Your task to perform on an android device: turn notification dots off Image 0: 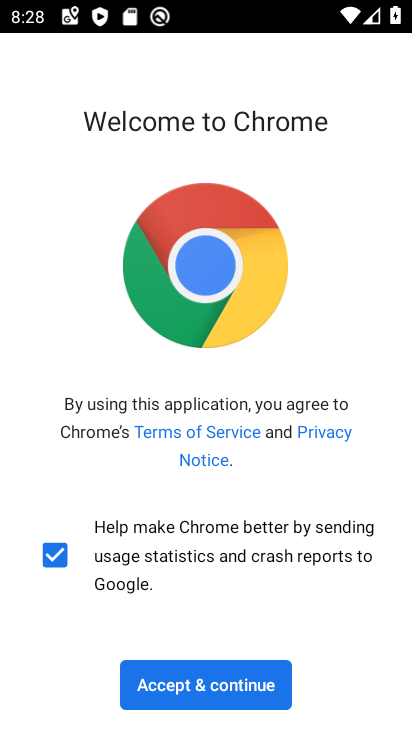
Step 0: press back button
Your task to perform on an android device: turn notification dots off Image 1: 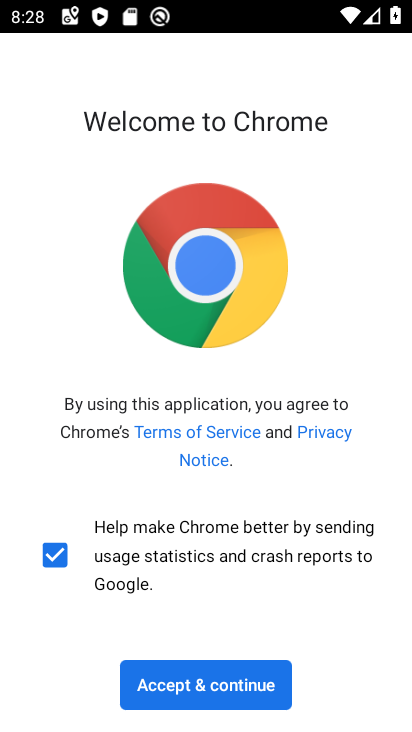
Step 1: press back button
Your task to perform on an android device: turn notification dots off Image 2: 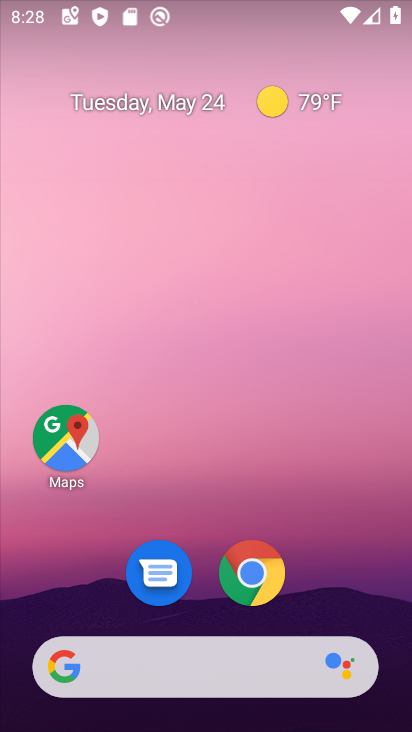
Step 2: drag from (355, 569) to (202, 24)
Your task to perform on an android device: turn notification dots off Image 3: 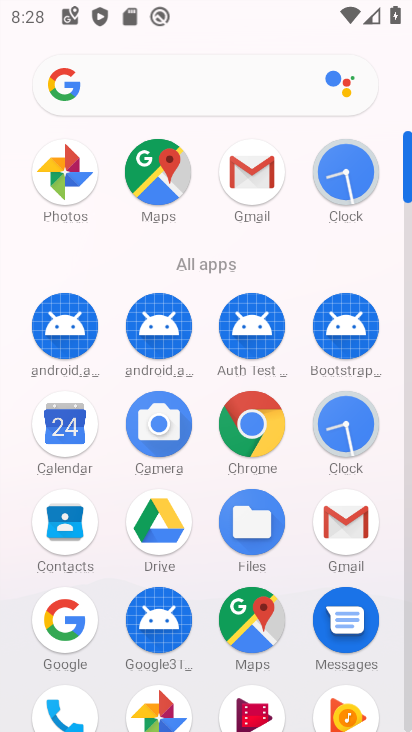
Step 3: click (251, 71)
Your task to perform on an android device: turn notification dots off Image 4: 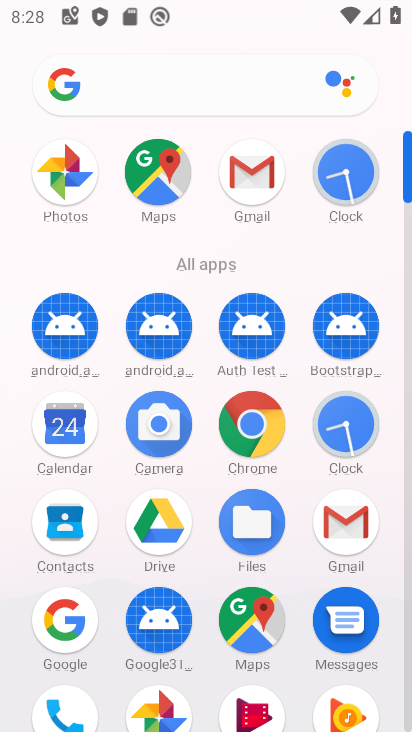
Step 4: drag from (325, 413) to (311, 202)
Your task to perform on an android device: turn notification dots off Image 5: 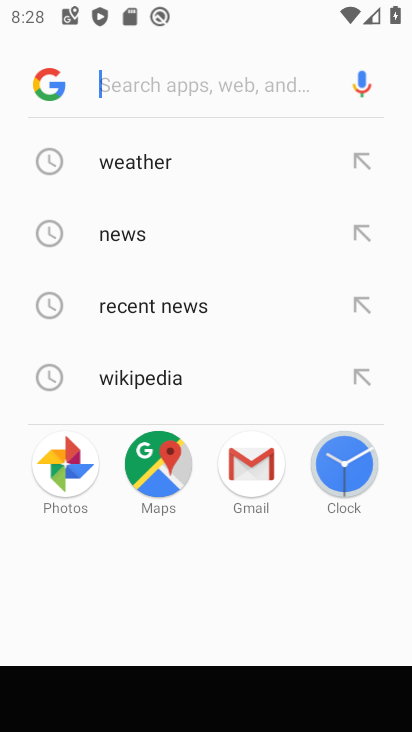
Step 5: click (317, 536)
Your task to perform on an android device: turn notification dots off Image 6: 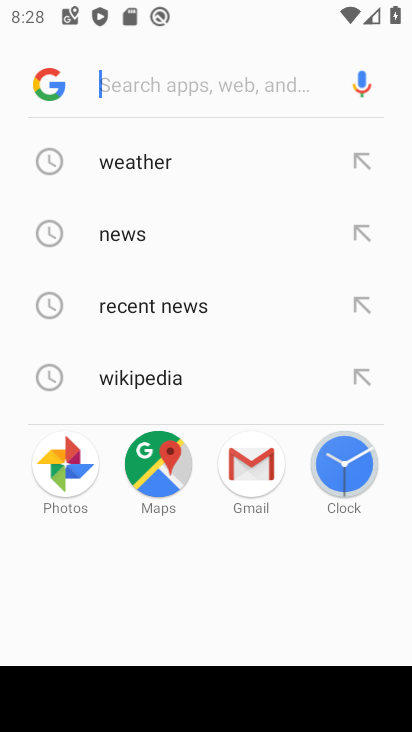
Step 6: press back button
Your task to perform on an android device: turn notification dots off Image 7: 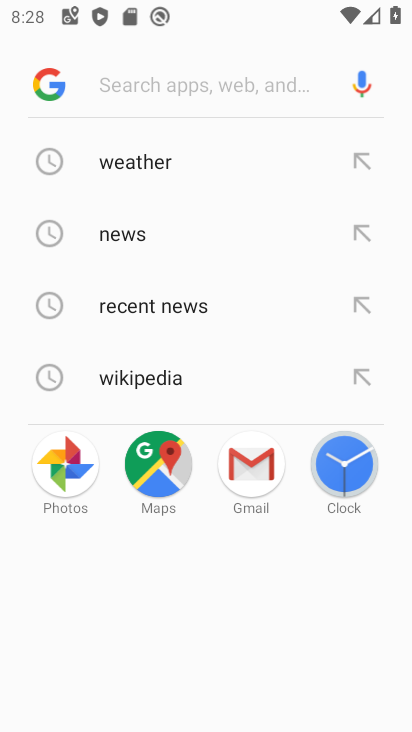
Step 7: press back button
Your task to perform on an android device: turn notification dots off Image 8: 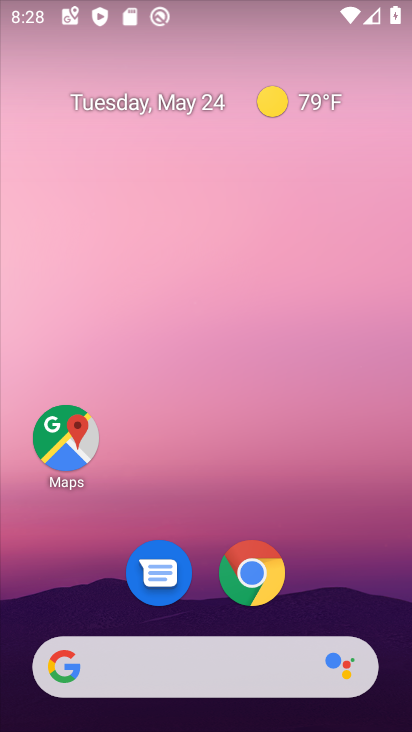
Step 8: drag from (331, 651) to (180, 91)
Your task to perform on an android device: turn notification dots off Image 9: 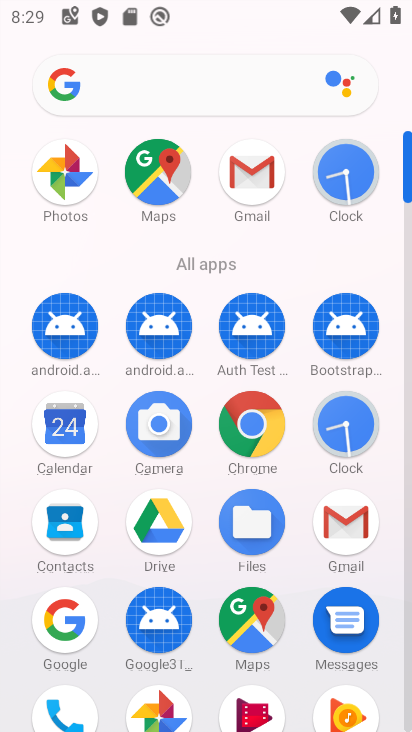
Step 9: drag from (233, 524) to (196, 172)
Your task to perform on an android device: turn notification dots off Image 10: 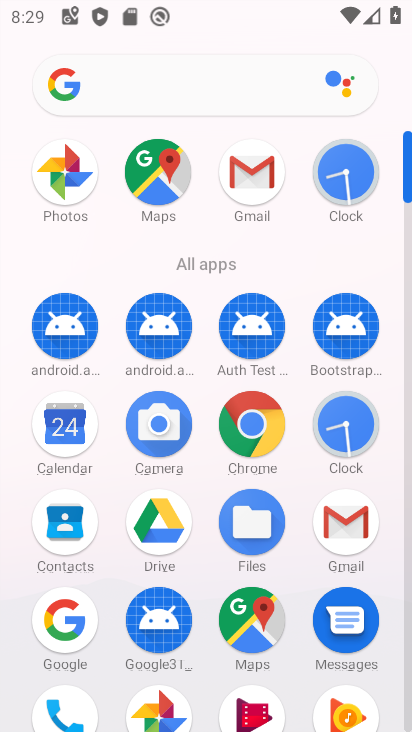
Step 10: drag from (217, 374) to (216, 130)
Your task to perform on an android device: turn notification dots off Image 11: 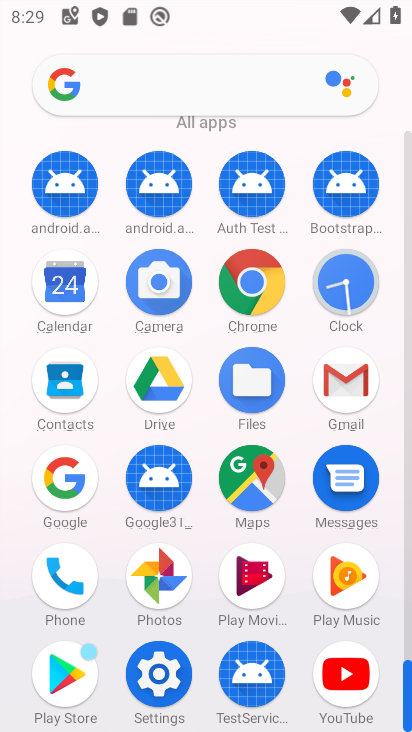
Step 11: click (134, 674)
Your task to perform on an android device: turn notification dots off Image 12: 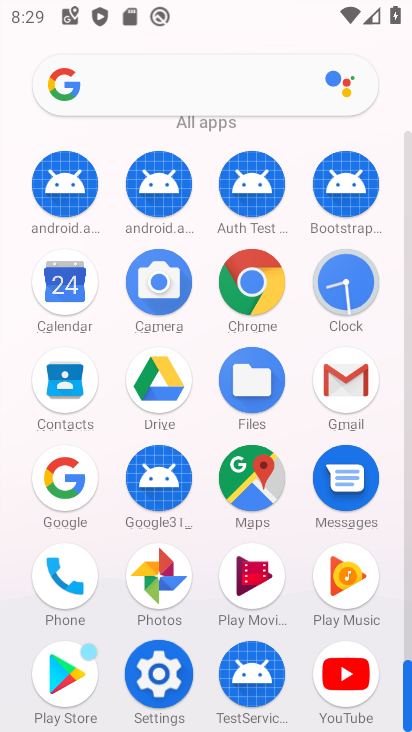
Step 12: click (140, 674)
Your task to perform on an android device: turn notification dots off Image 13: 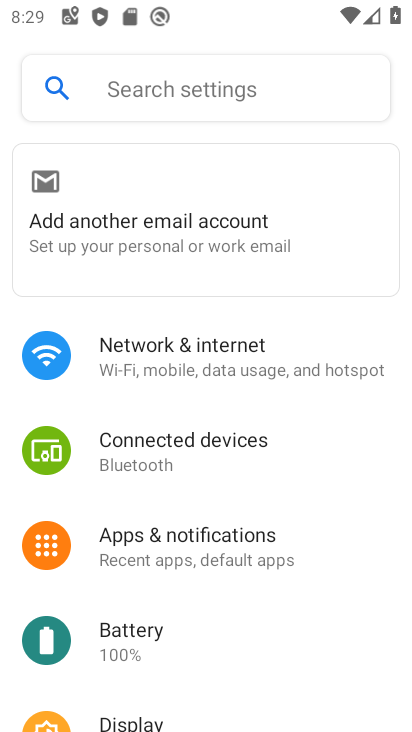
Step 13: click (147, 541)
Your task to perform on an android device: turn notification dots off Image 14: 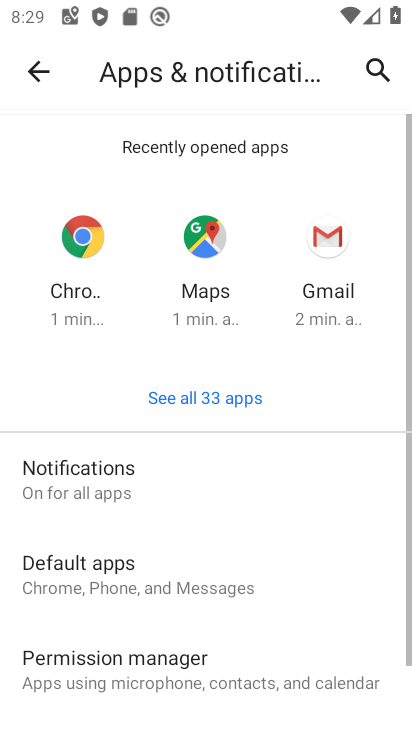
Step 14: click (70, 483)
Your task to perform on an android device: turn notification dots off Image 15: 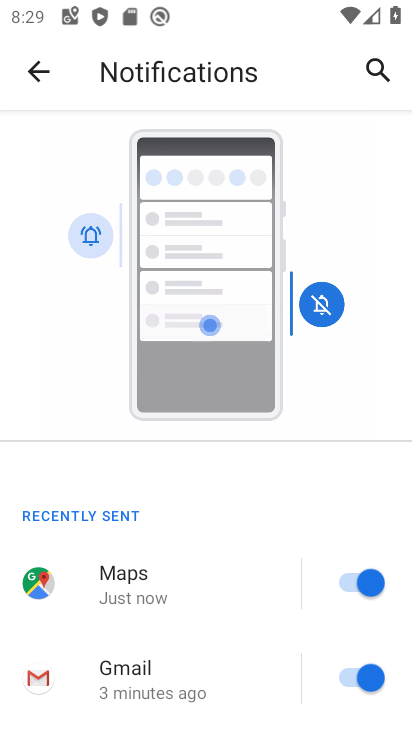
Step 15: drag from (172, 565) to (113, 268)
Your task to perform on an android device: turn notification dots off Image 16: 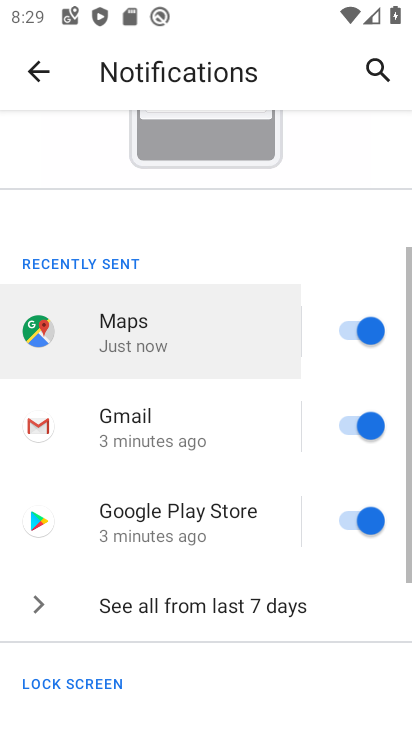
Step 16: drag from (179, 475) to (133, 128)
Your task to perform on an android device: turn notification dots off Image 17: 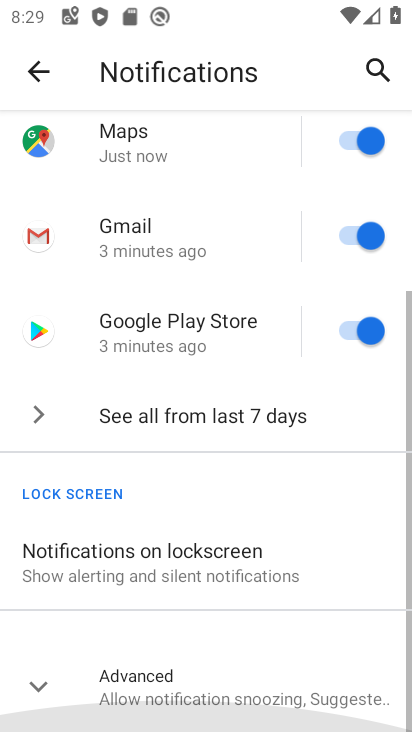
Step 17: drag from (216, 494) to (199, 243)
Your task to perform on an android device: turn notification dots off Image 18: 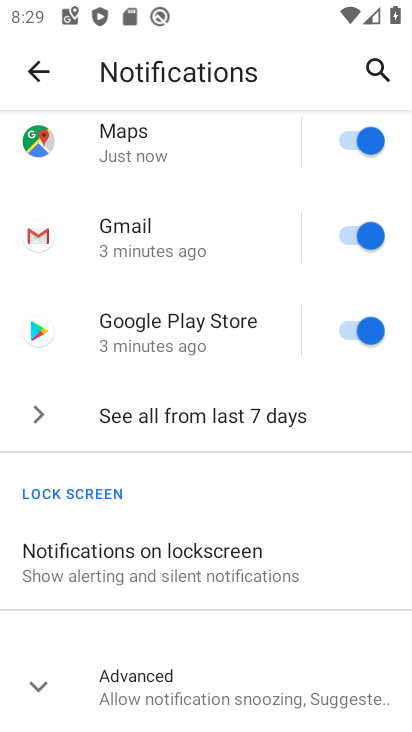
Step 18: click (133, 690)
Your task to perform on an android device: turn notification dots off Image 19: 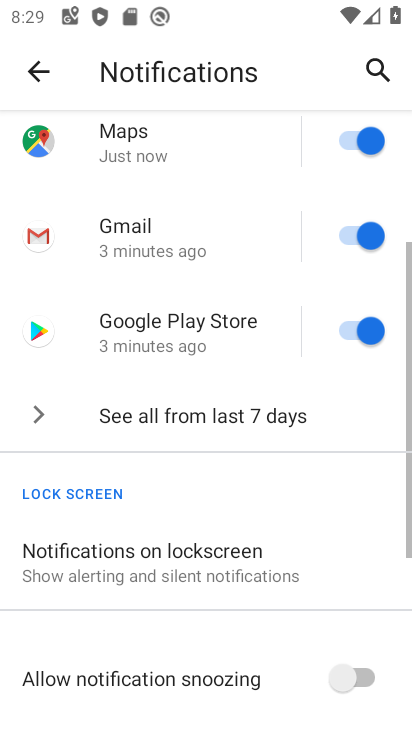
Step 19: drag from (229, 591) to (122, 87)
Your task to perform on an android device: turn notification dots off Image 20: 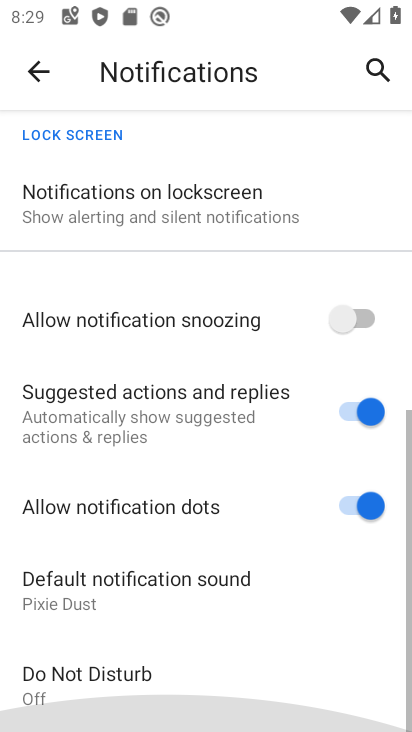
Step 20: drag from (196, 382) to (196, 28)
Your task to perform on an android device: turn notification dots off Image 21: 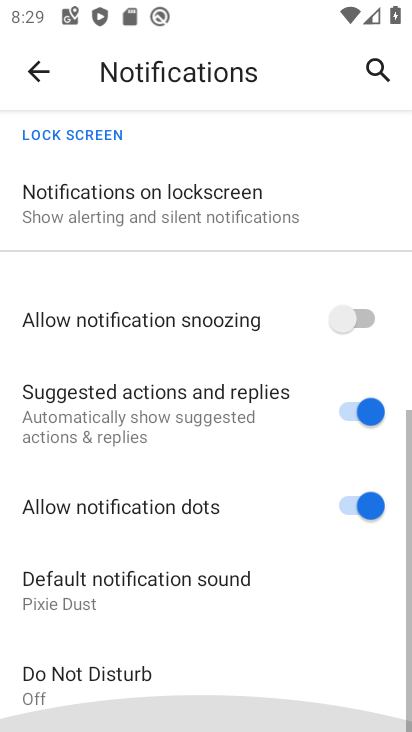
Step 21: drag from (219, 441) to (213, 128)
Your task to perform on an android device: turn notification dots off Image 22: 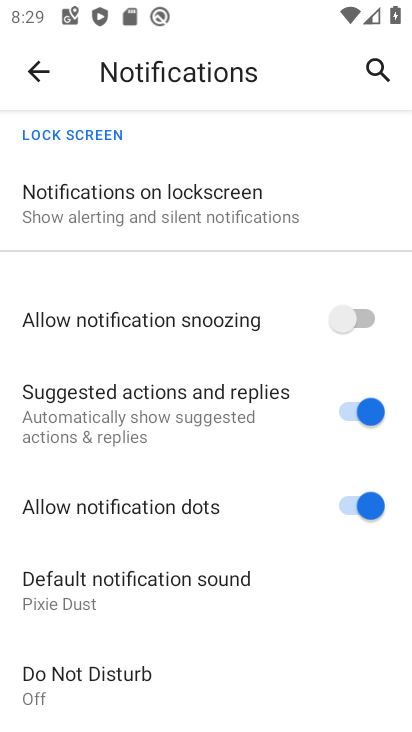
Step 22: click (365, 500)
Your task to perform on an android device: turn notification dots off Image 23: 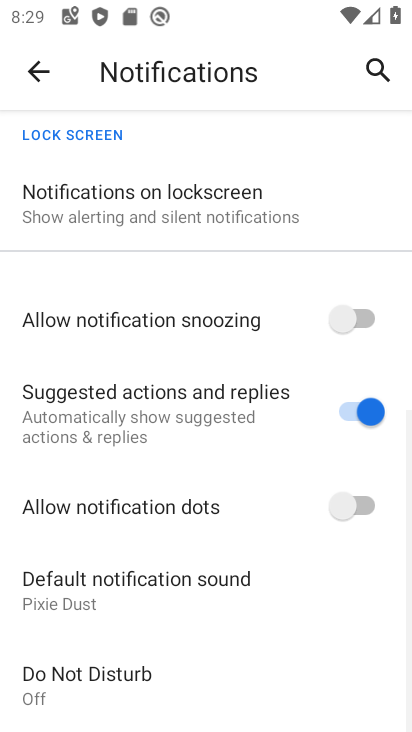
Step 23: task complete